Your task to perform on an android device: Open location settings Image 0: 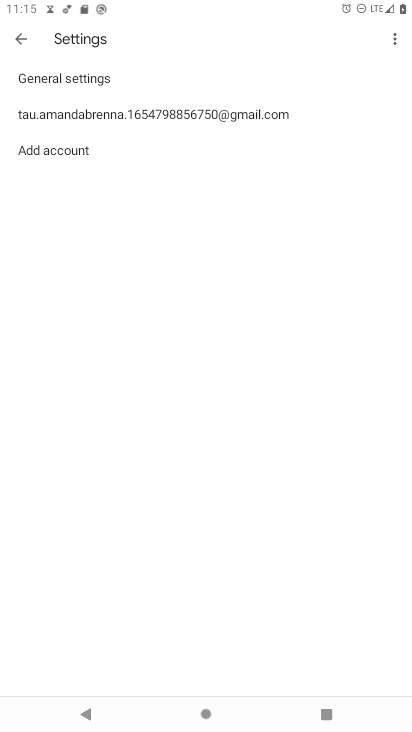
Step 0: press home button
Your task to perform on an android device: Open location settings Image 1: 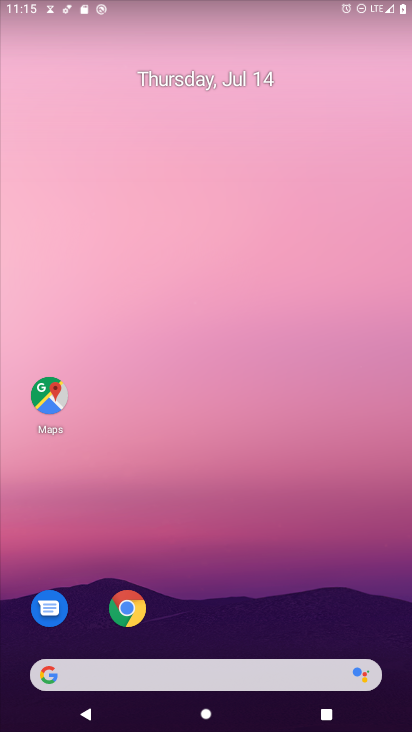
Step 1: drag from (233, 629) to (239, 170)
Your task to perform on an android device: Open location settings Image 2: 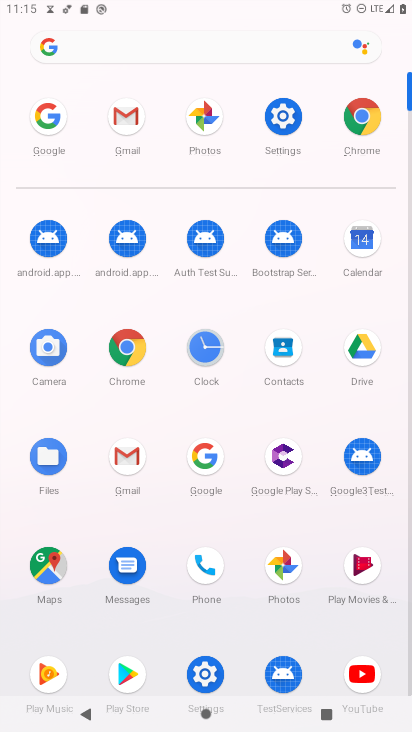
Step 2: click (289, 113)
Your task to perform on an android device: Open location settings Image 3: 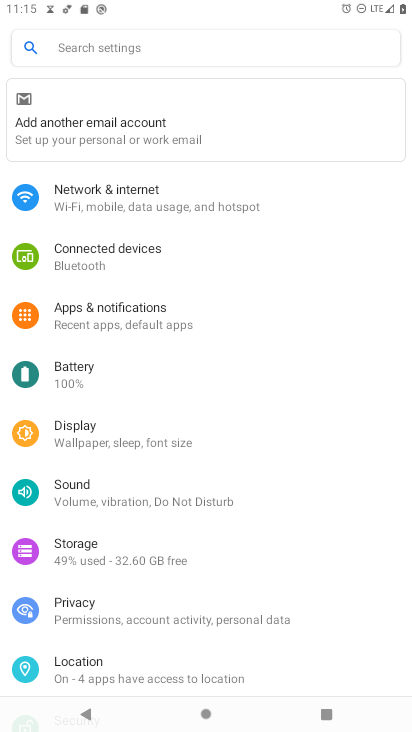
Step 3: click (82, 660)
Your task to perform on an android device: Open location settings Image 4: 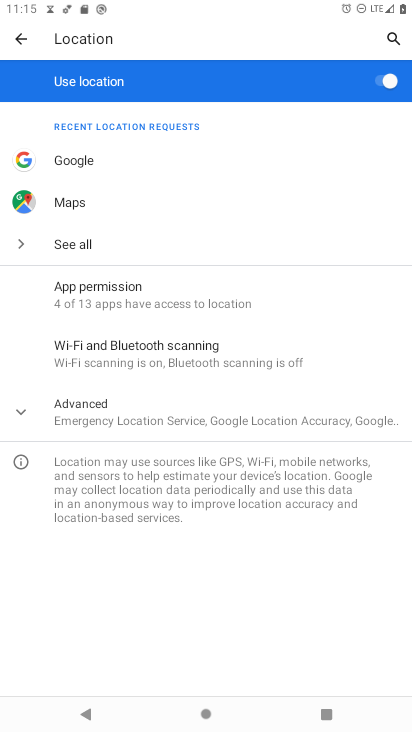
Step 4: task complete